Your task to perform on an android device: Open Google Chrome Image 0: 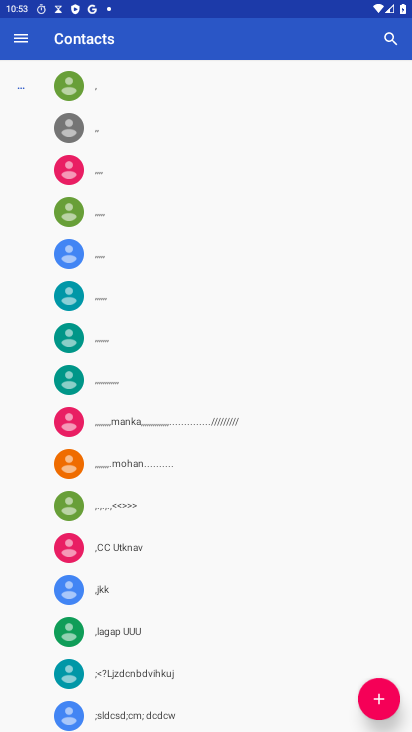
Step 0: press home button
Your task to perform on an android device: Open Google Chrome Image 1: 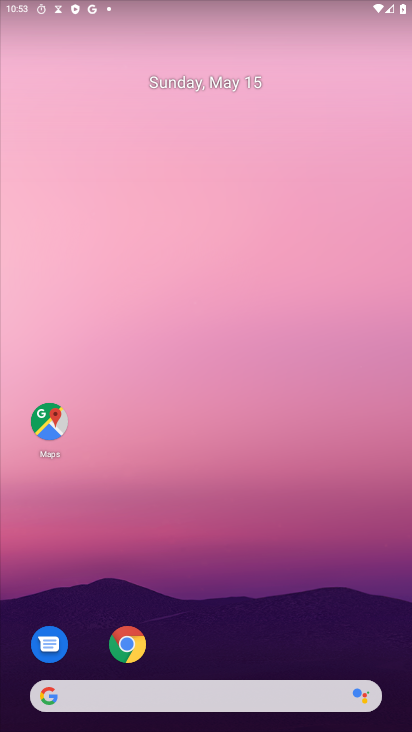
Step 1: drag from (259, 643) to (155, 307)
Your task to perform on an android device: Open Google Chrome Image 2: 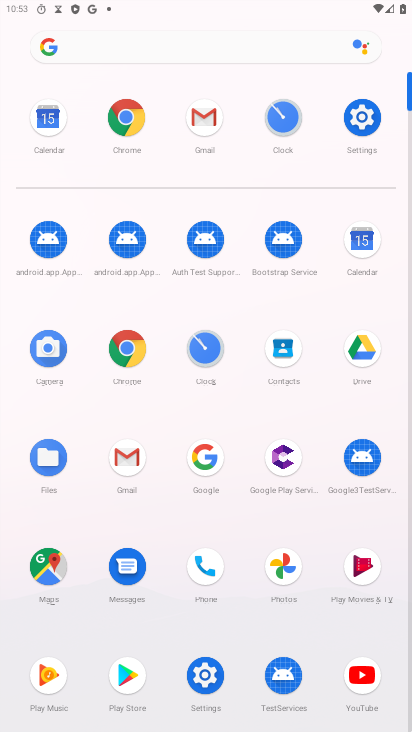
Step 2: click (138, 340)
Your task to perform on an android device: Open Google Chrome Image 3: 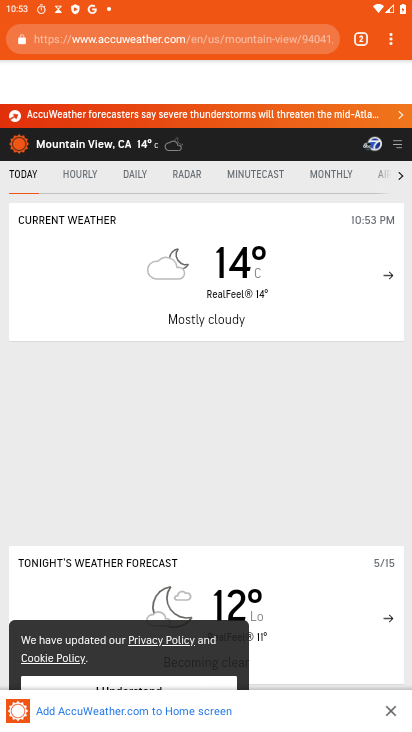
Step 3: task complete